Your task to perform on an android device: When is my next appointment? Image 0: 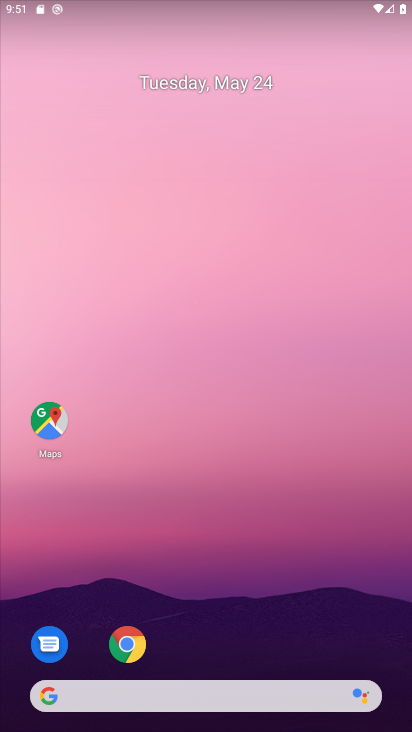
Step 0: drag from (314, 572) to (229, 12)
Your task to perform on an android device: When is my next appointment? Image 1: 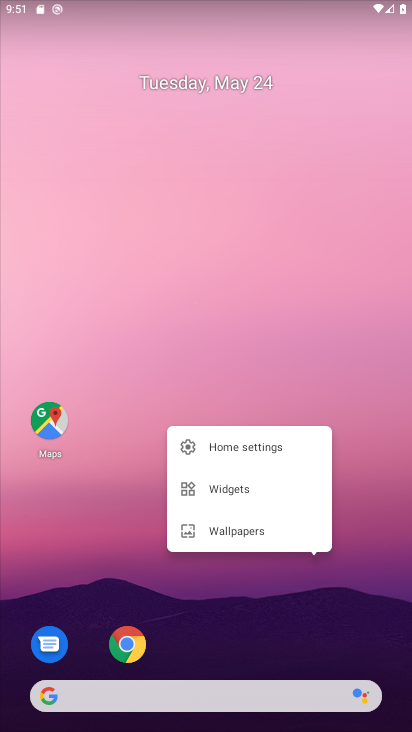
Step 1: click (151, 236)
Your task to perform on an android device: When is my next appointment? Image 2: 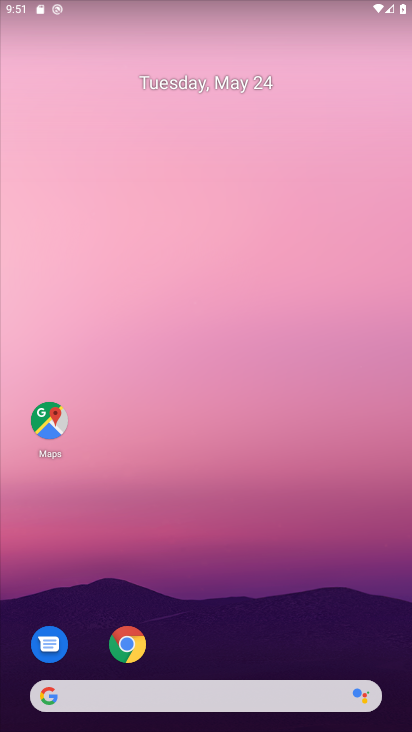
Step 2: drag from (240, 612) to (143, 187)
Your task to perform on an android device: When is my next appointment? Image 3: 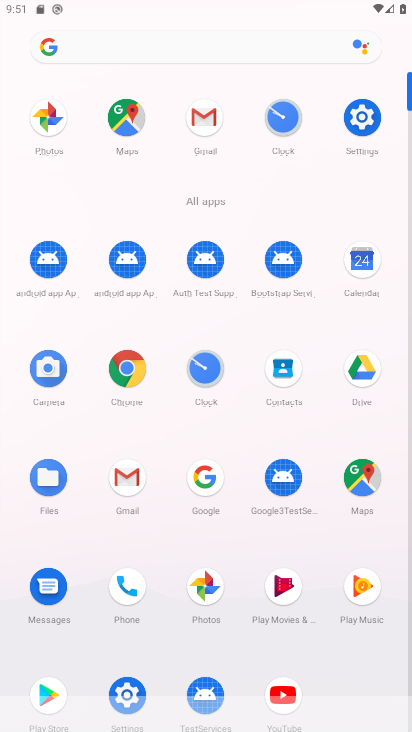
Step 3: click (357, 255)
Your task to perform on an android device: When is my next appointment? Image 4: 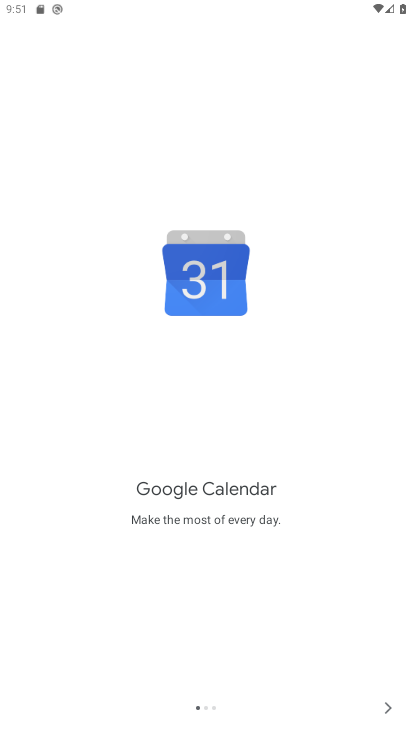
Step 4: click (393, 709)
Your task to perform on an android device: When is my next appointment? Image 5: 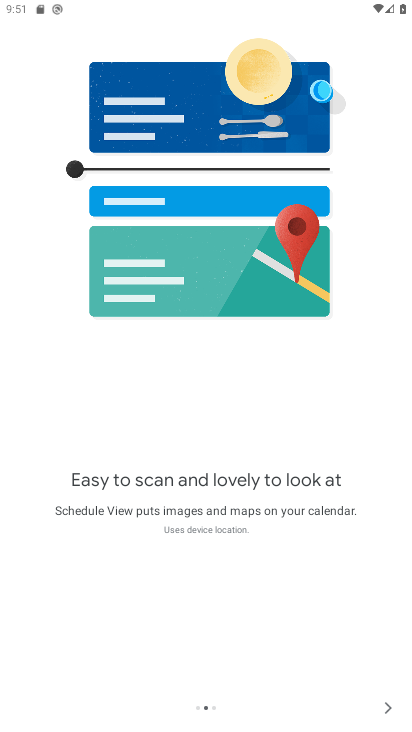
Step 5: click (380, 707)
Your task to perform on an android device: When is my next appointment? Image 6: 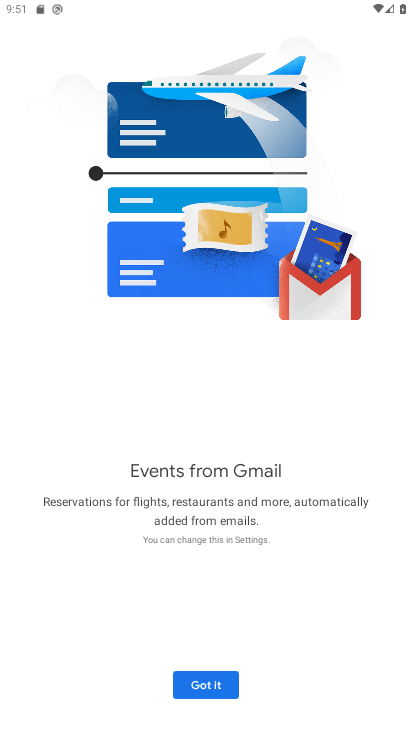
Step 6: click (200, 684)
Your task to perform on an android device: When is my next appointment? Image 7: 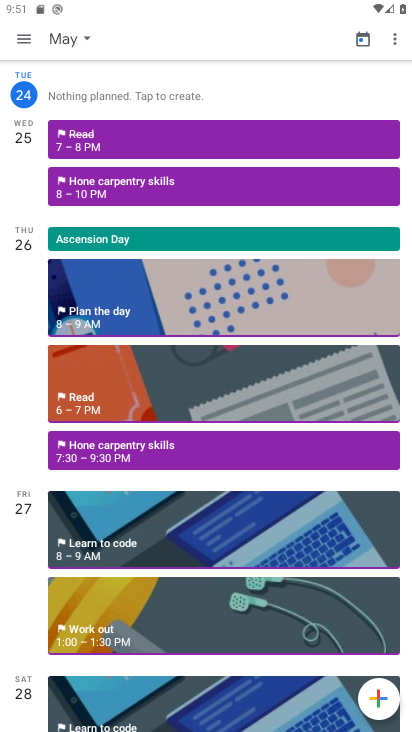
Step 7: click (18, 32)
Your task to perform on an android device: When is my next appointment? Image 8: 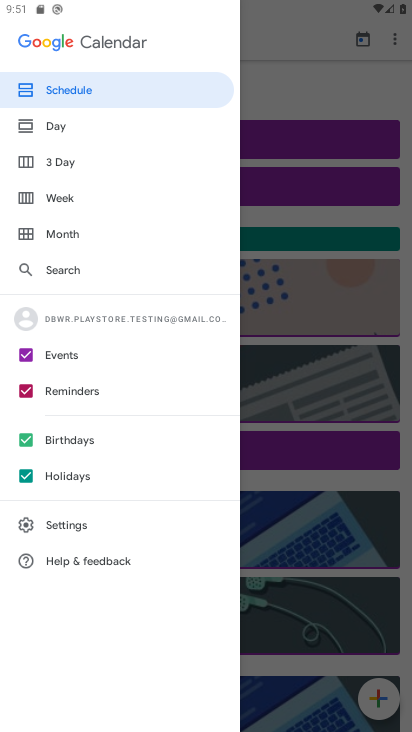
Step 8: click (48, 120)
Your task to perform on an android device: When is my next appointment? Image 9: 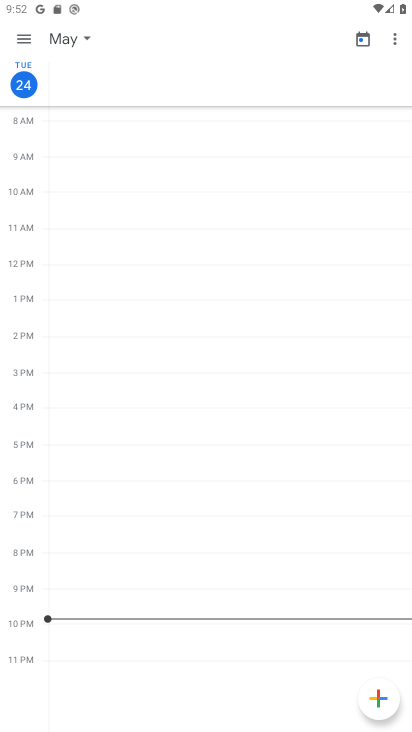
Step 9: task complete